Your task to perform on an android device: toggle sleep mode Image 0: 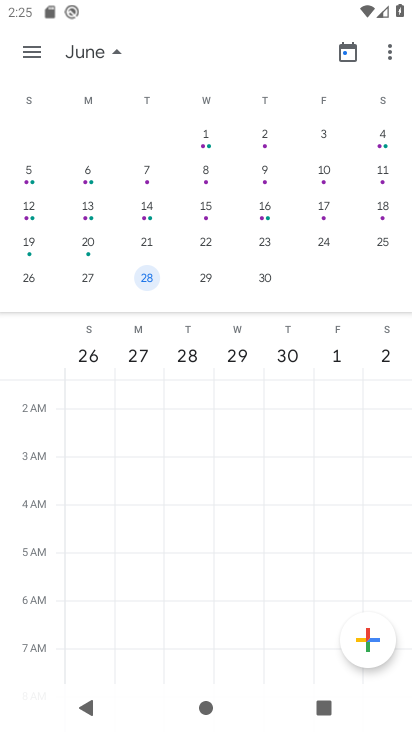
Step 0: press home button
Your task to perform on an android device: toggle sleep mode Image 1: 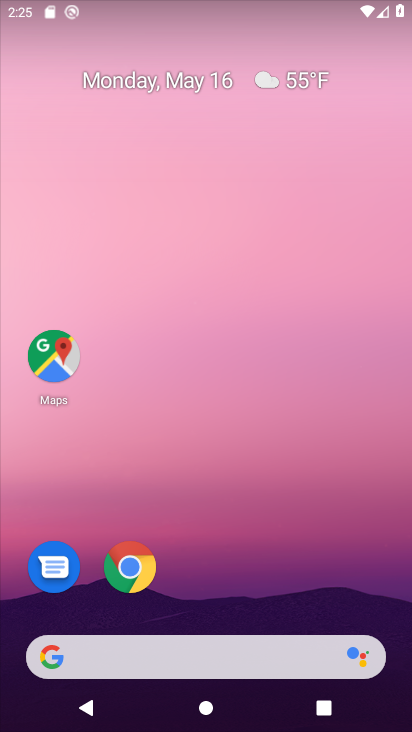
Step 1: drag from (290, 579) to (254, 3)
Your task to perform on an android device: toggle sleep mode Image 2: 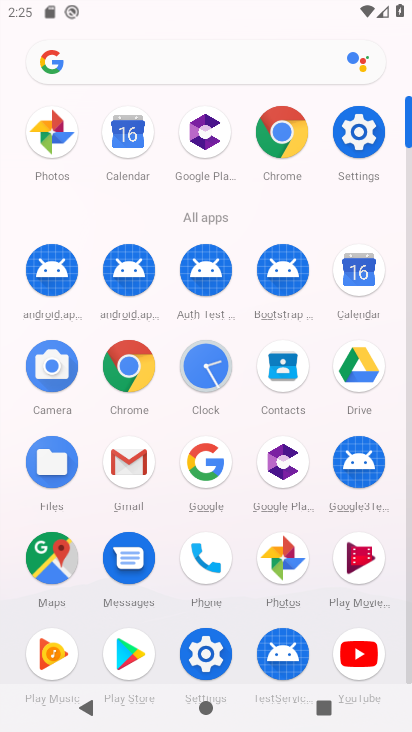
Step 2: drag from (234, 542) to (231, 129)
Your task to perform on an android device: toggle sleep mode Image 3: 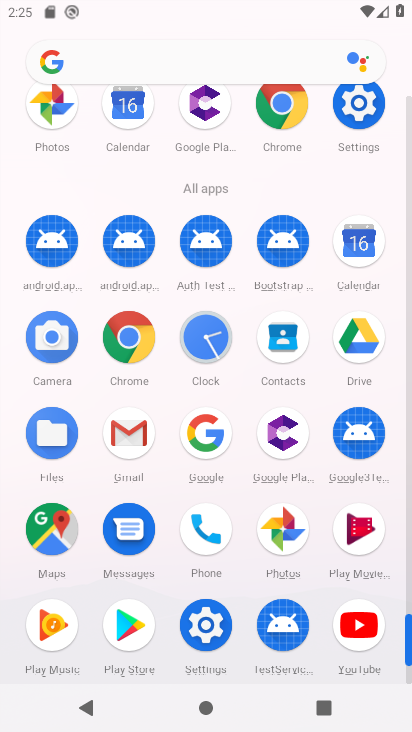
Step 3: click (214, 639)
Your task to perform on an android device: toggle sleep mode Image 4: 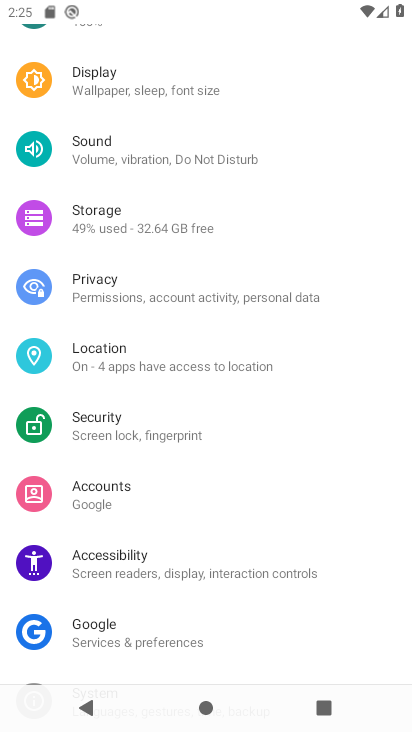
Step 4: click (152, 86)
Your task to perform on an android device: toggle sleep mode Image 5: 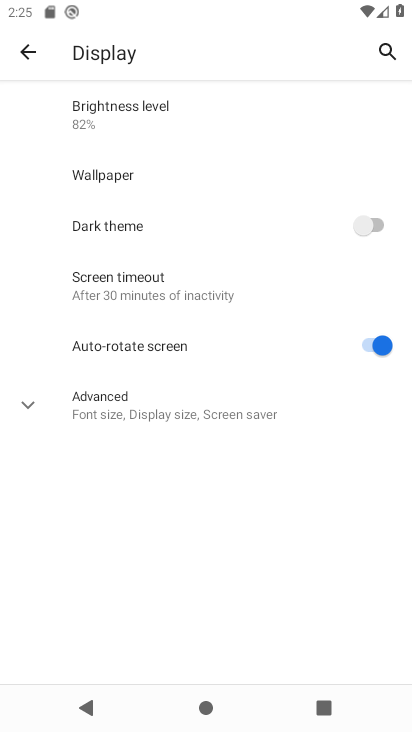
Step 5: click (205, 410)
Your task to perform on an android device: toggle sleep mode Image 6: 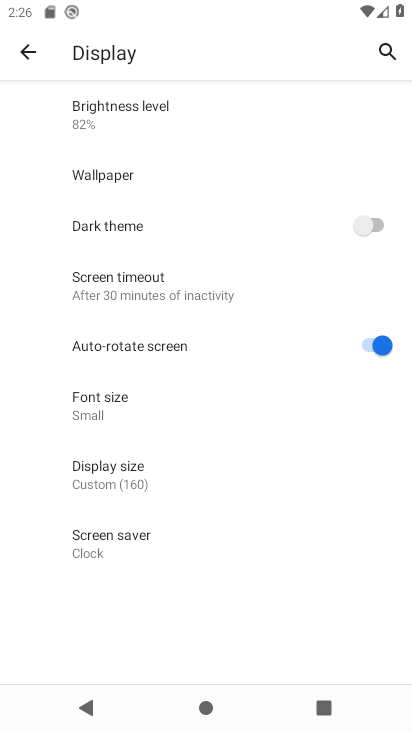
Step 6: task complete